Your task to perform on an android device: Open maps Image 0: 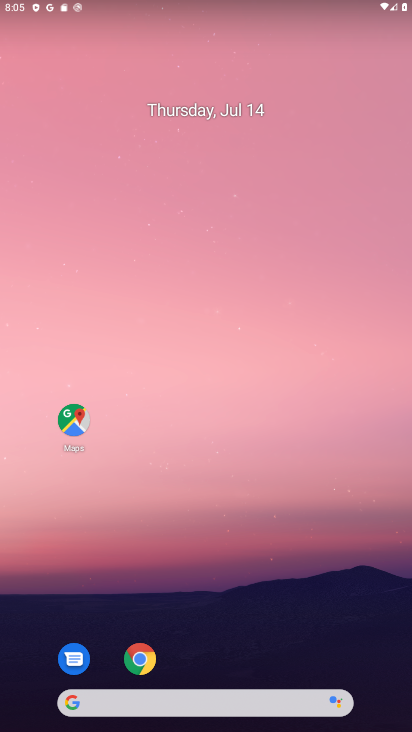
Step 0: click (76, 416)
Your task to perform on an android device: Open maps Image 1: 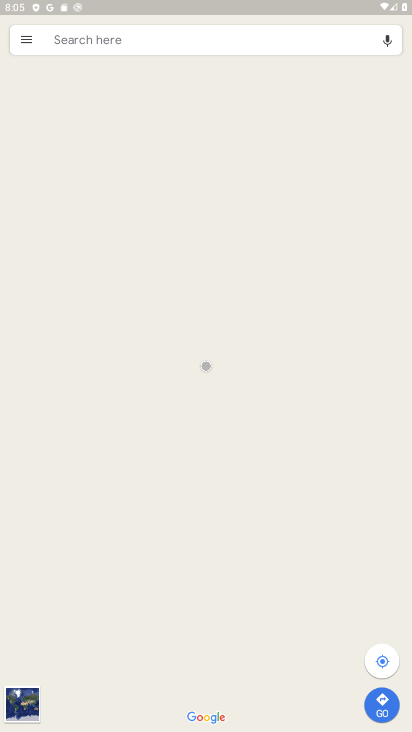
Step 1: task complete